Your task to perform on an android device: change notifications settings Image 0: 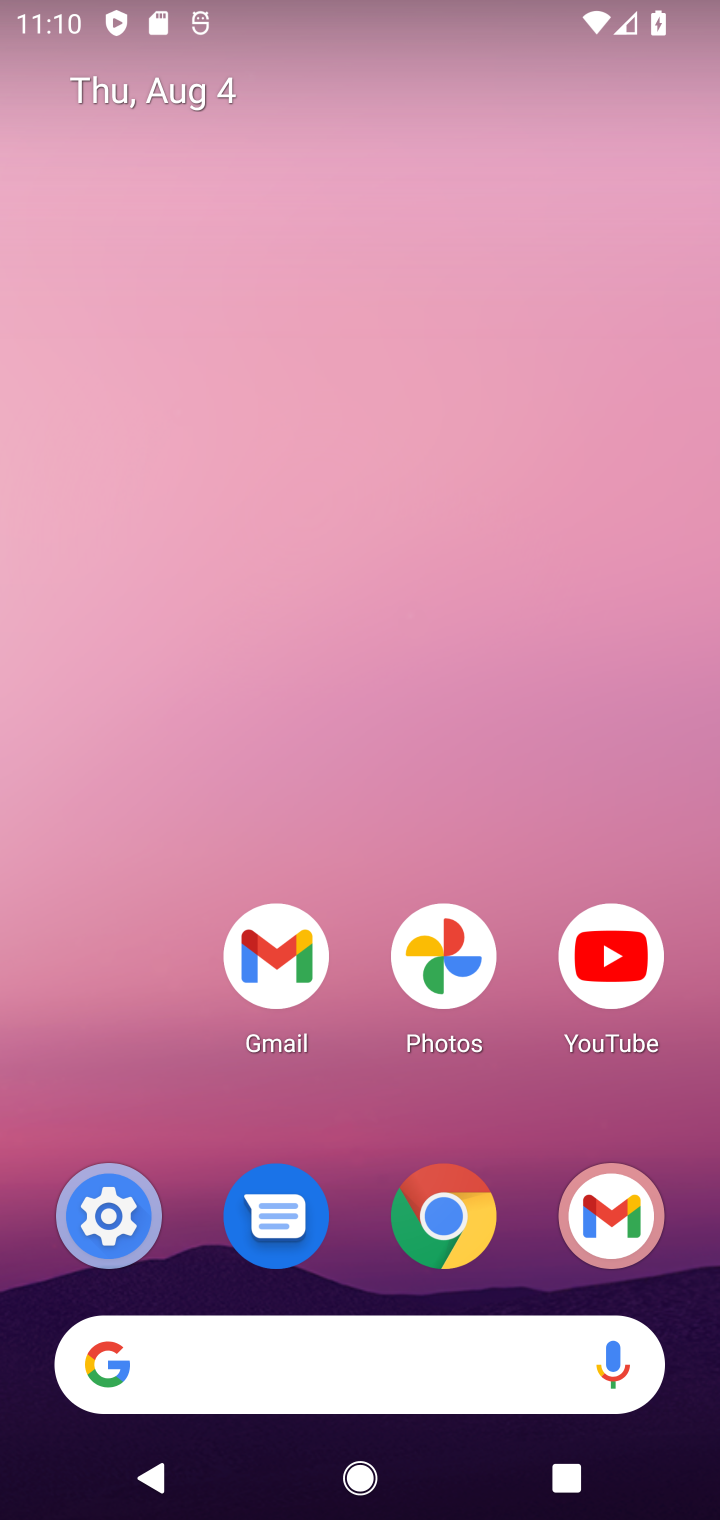
Step 0: drag from (223, 735) to (332, 6)
Your task to perform on an android device: change notifications settings Image 1: 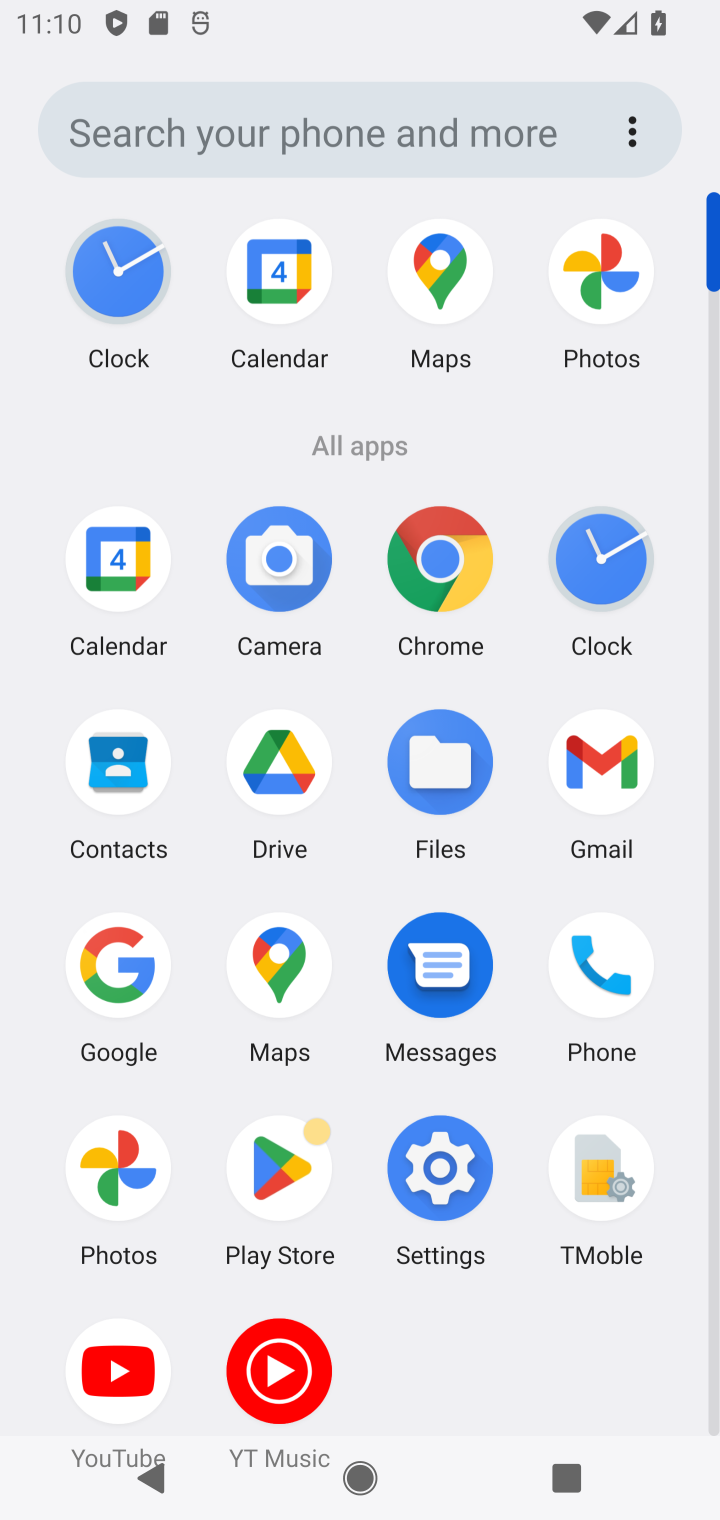
Step 1: click (422, 1185)
Your task to perform on an android device: change notifications settings Image 2: 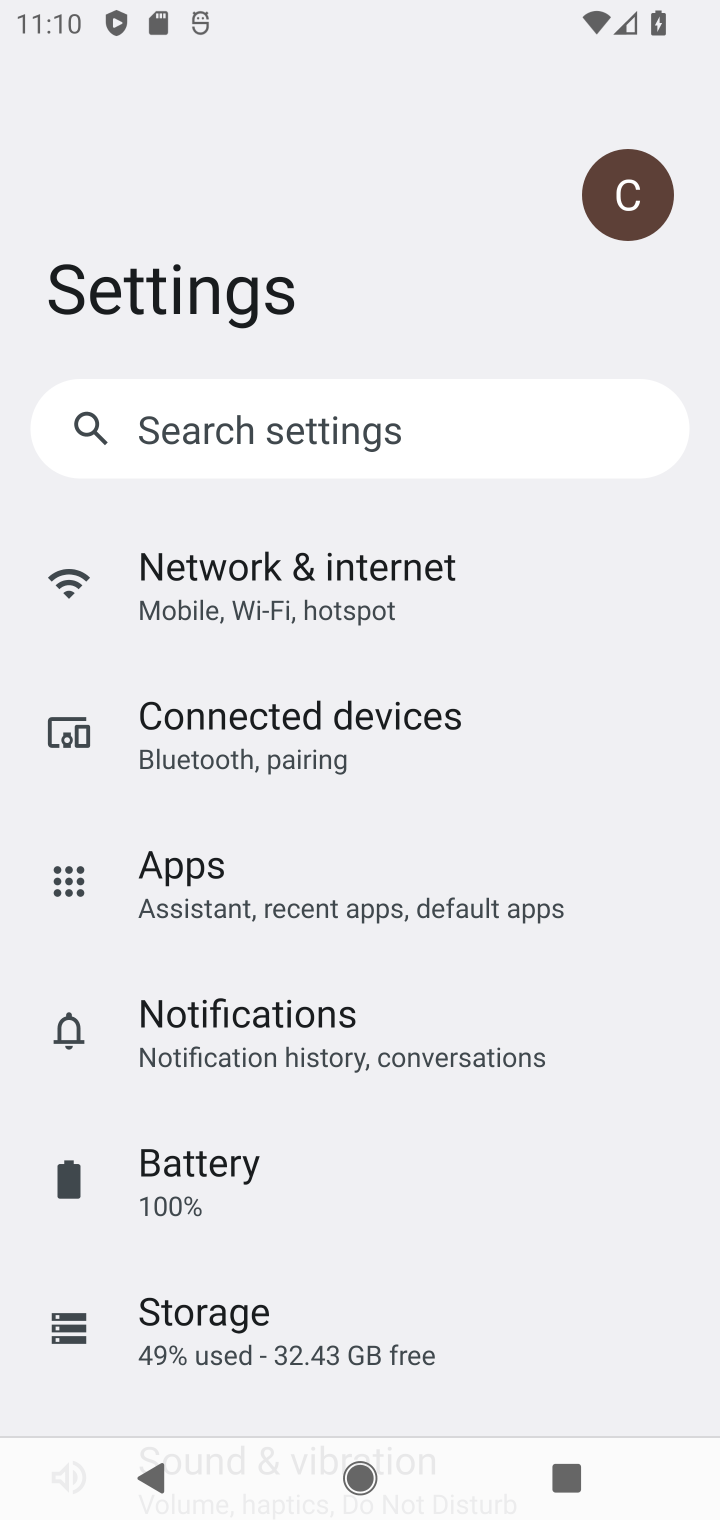
Step 2: drag from (369, 1232) to (386, 792)
Your task to perform on an android device: change notifications settings Image 3: 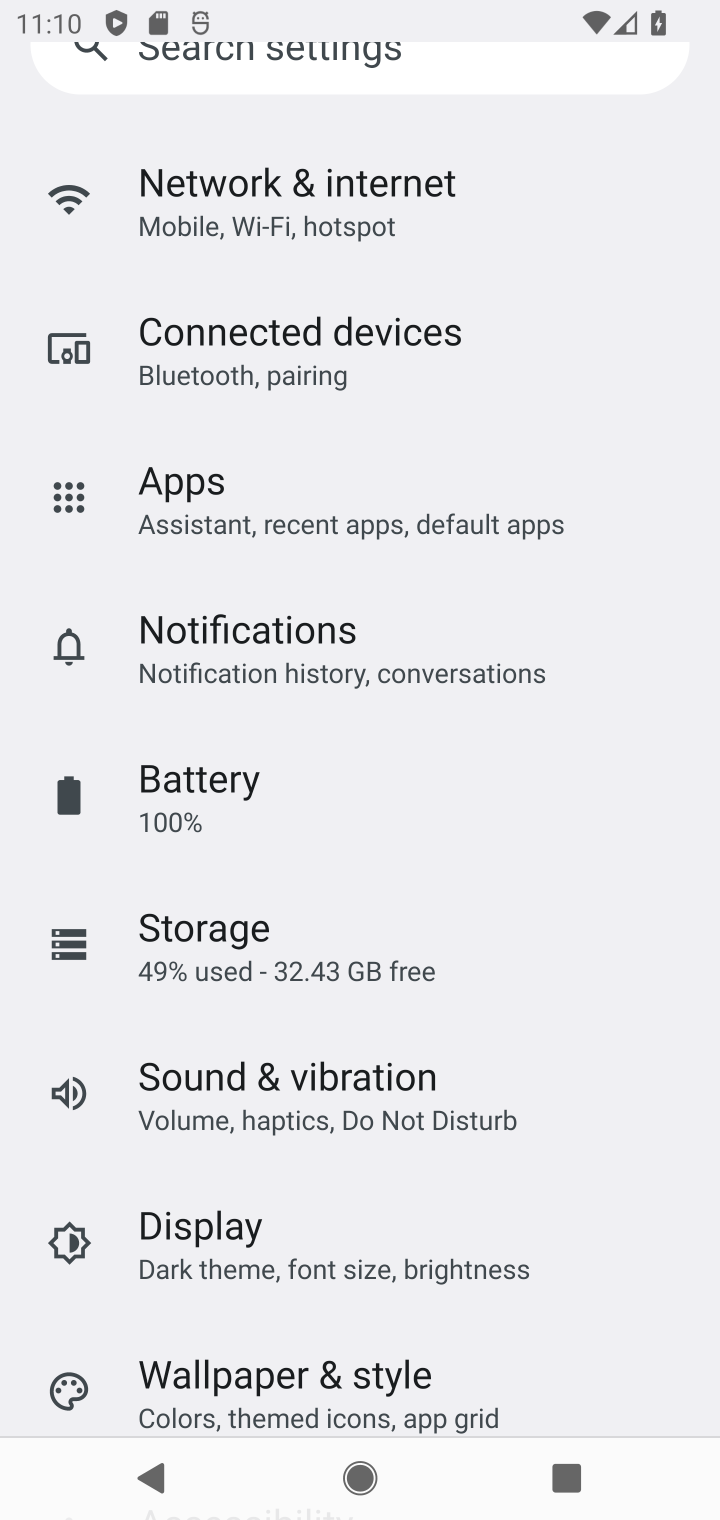
Step 3: click (383, 644)
Your task to perform on an android device: change notifications settings Image 4: 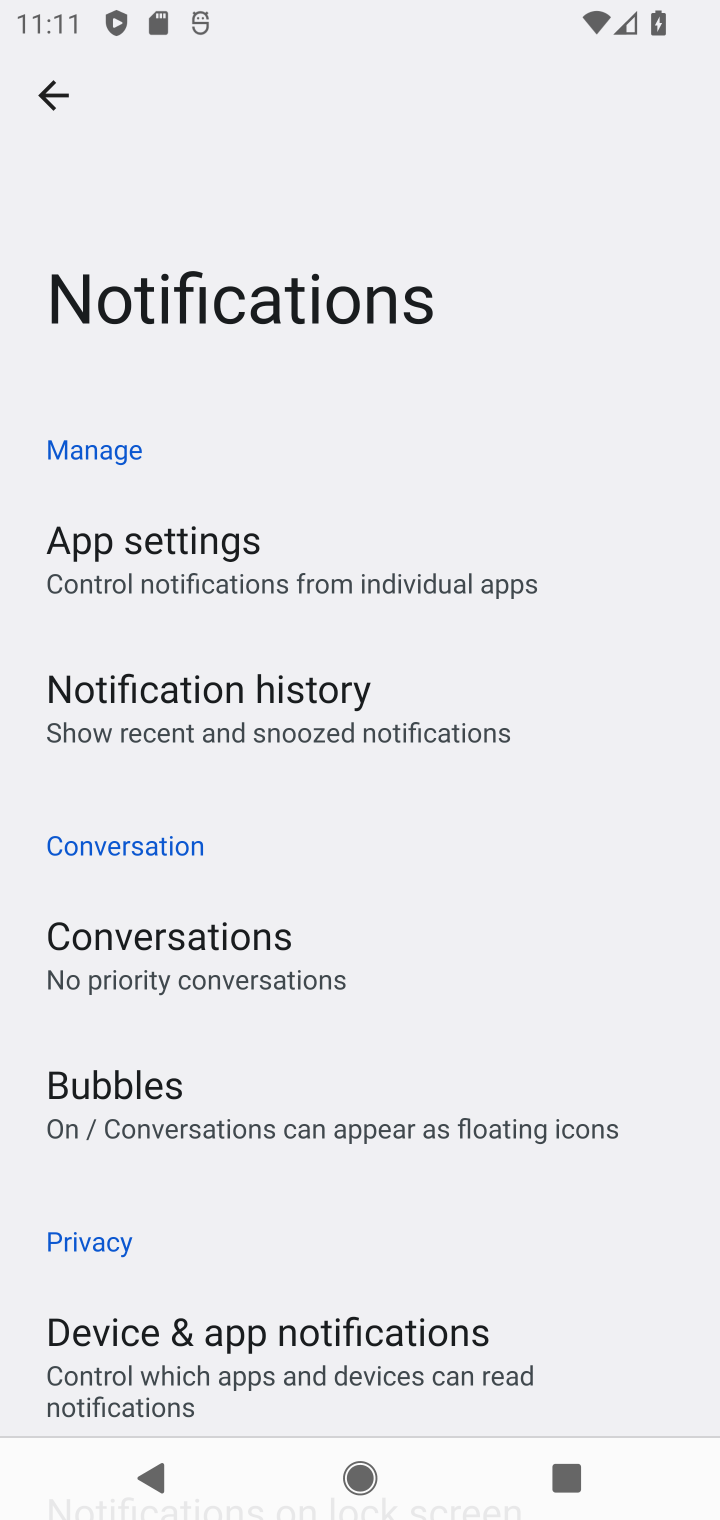
Step 4: click (383, 575)
Your task to perform on an android device: change notifications settings Image 5: 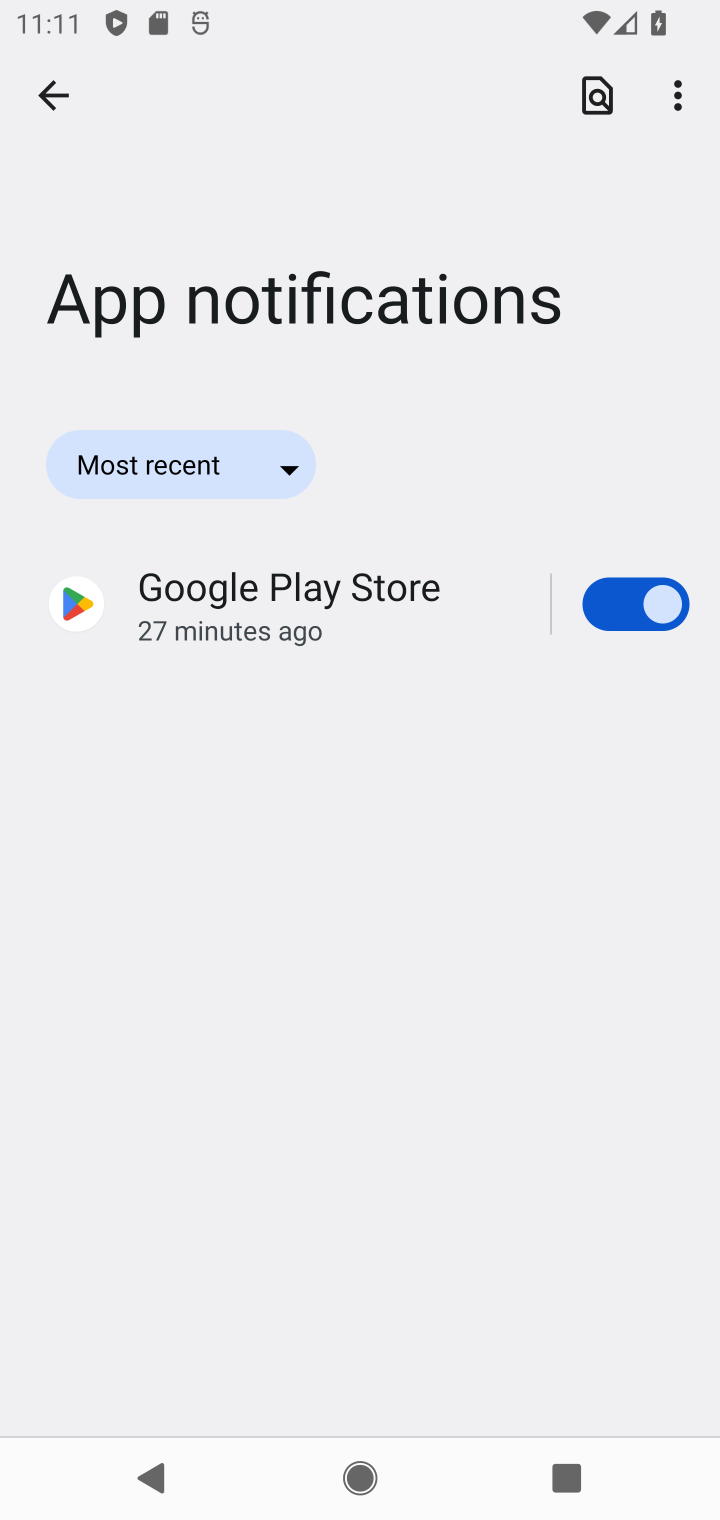
Step 5: click (631, 603)
Your task to perform on an android device: change notifications settings Image 6: 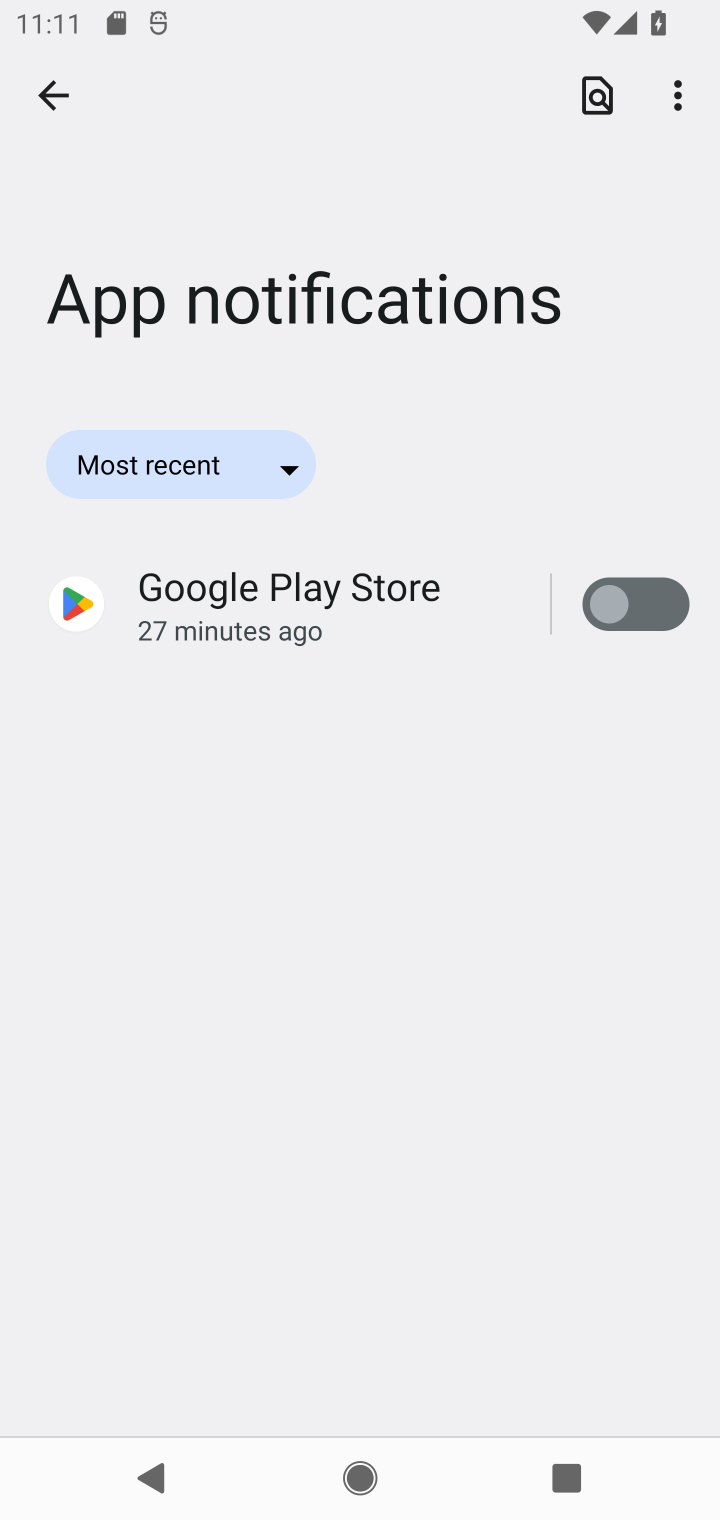
Step 6: task complete